Your task to perform on an android device: Open Wikipedia Image 0: 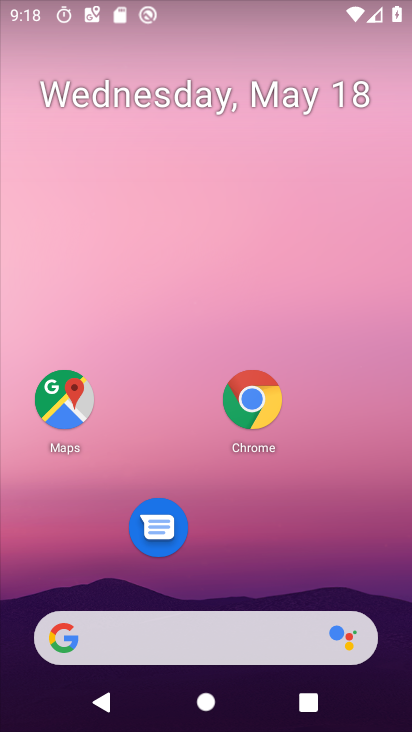
Step 0: click (261, 411)
Your task to perform on an android device: Open Wikipedia Image 1: 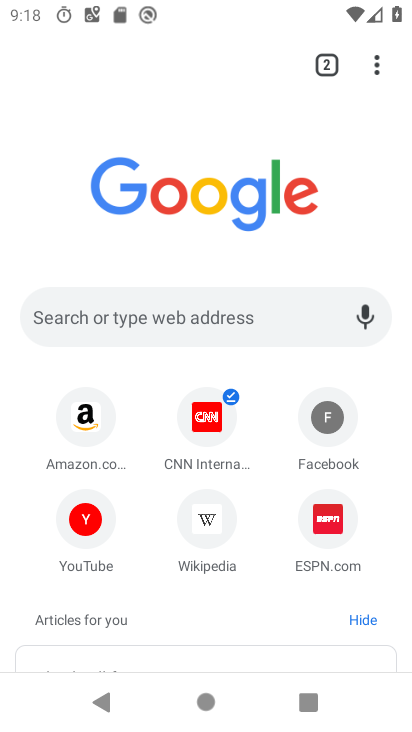
Step 1: click (249, 407)
Your task to perform on an android device: Open Wikipedia Image 2: 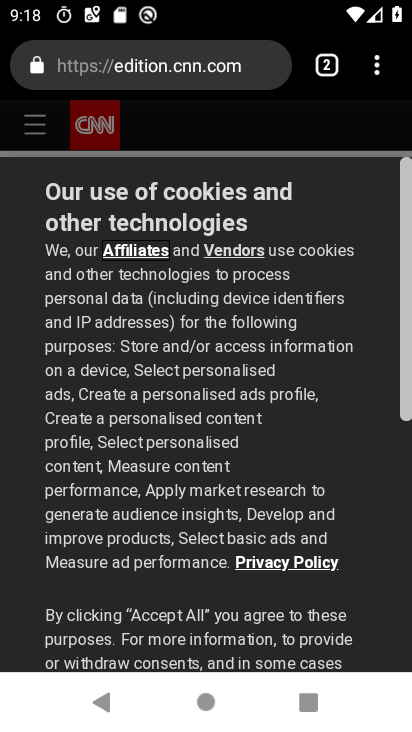
Step 2: press back button
Your task to perform on an android device: Open Wikipedia Image 3: 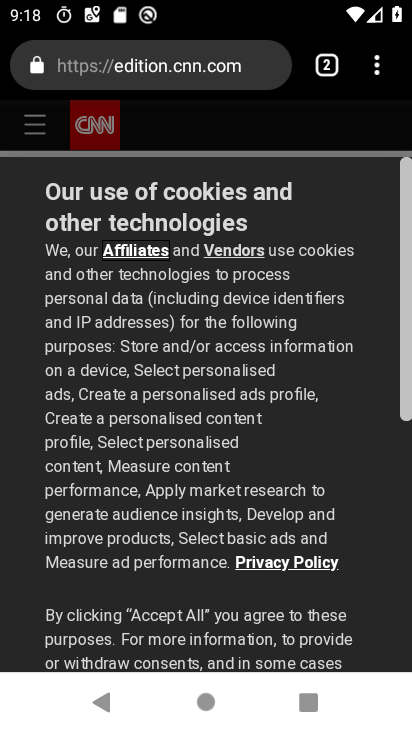
Step 3: press back button
Your task to perform on an android device: Open Wikipedia Image 4: 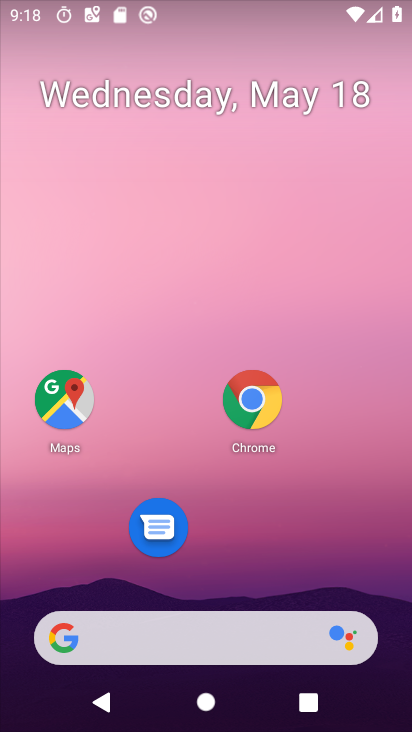
Step 4: click (241, 414)
Your task to perform on an android device: Open Wikipedia Image 5: 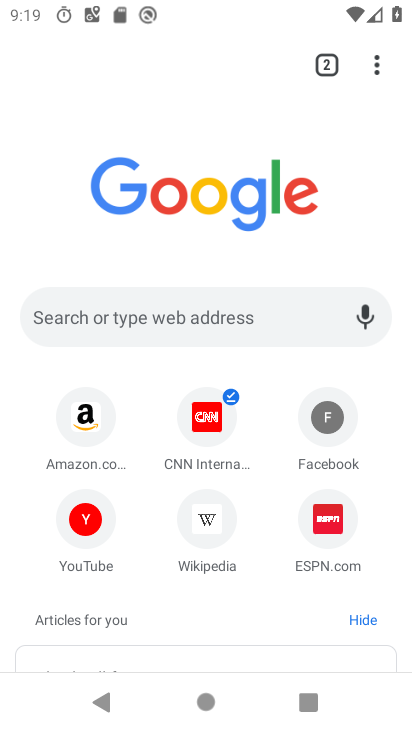
Step 5: click (198, 549)
Your task to perform on an android device: Open Wikipedia Image 6: 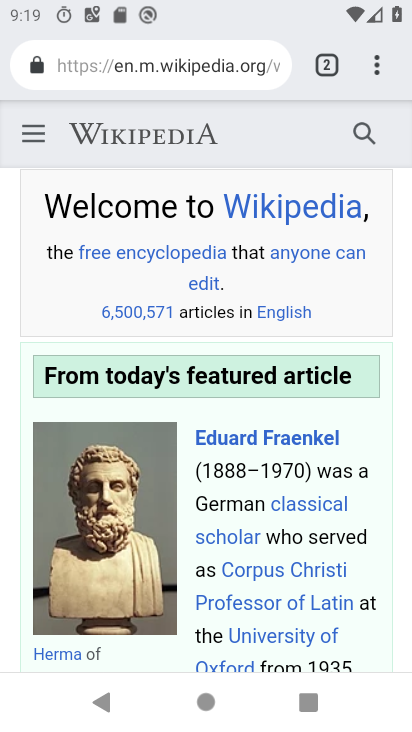
Step 6: task complete